Your task to perform on an android device: open app "Microsoft Excel" Image 0: 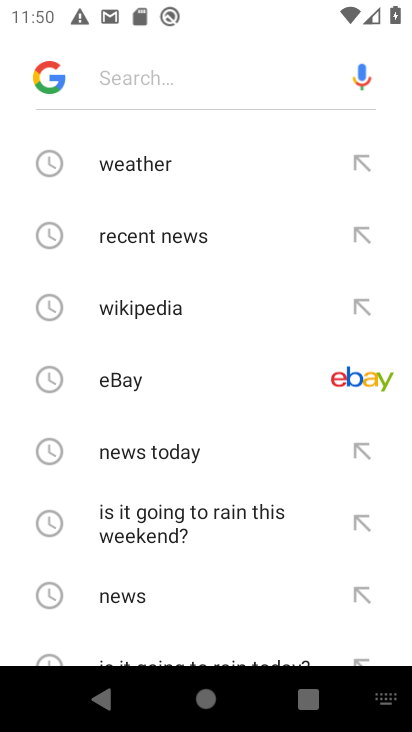
Step 0: press home button
Your task to perform on an android device: open app "Microsoft Excel" Image 1: 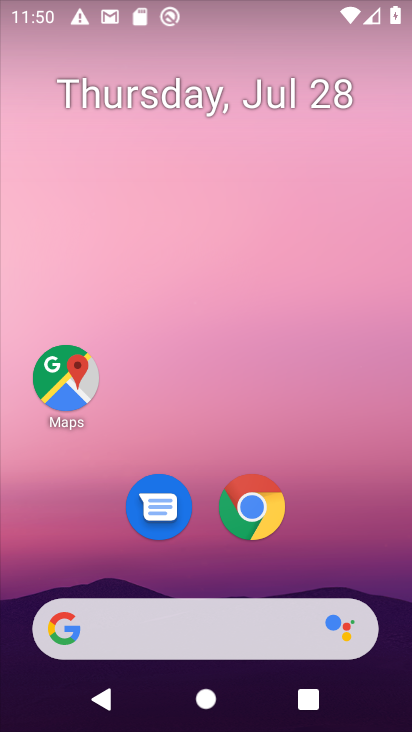
Step 1: drag from (213, 492) to (251, 2)
Your task to perform on an android device: open app "Microsoft Excel" Image 2: 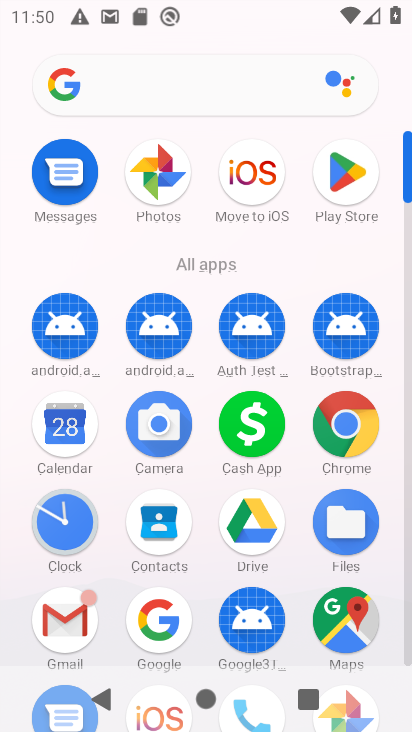
Step 2: click (353, 183)
Your task to perform on an android device: open app "Microsoft Excel" Image 3: 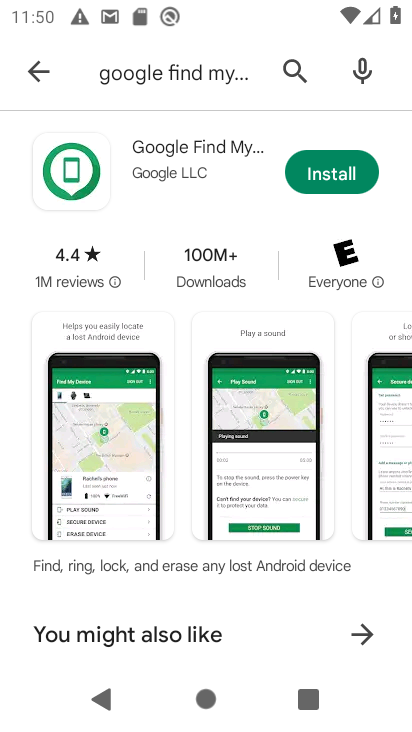
Step 3: click (220, 86)
Your task to perform on an android device: open app "Microsoft Excel" Image 4: 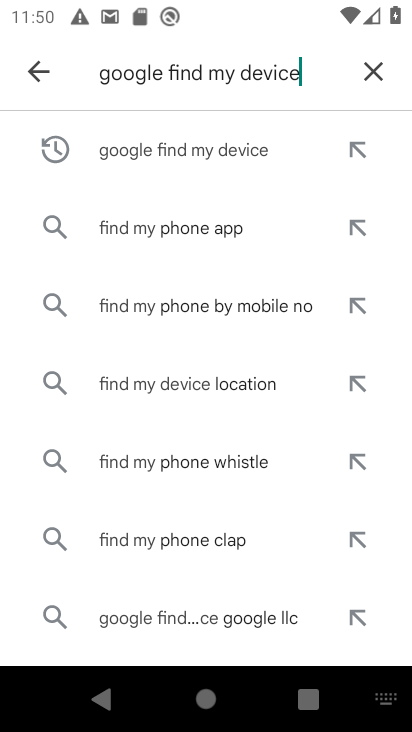
Step 4: click (365, 72)
Your task to perform on an android device: open app "Microsoft Excel" Image 5: 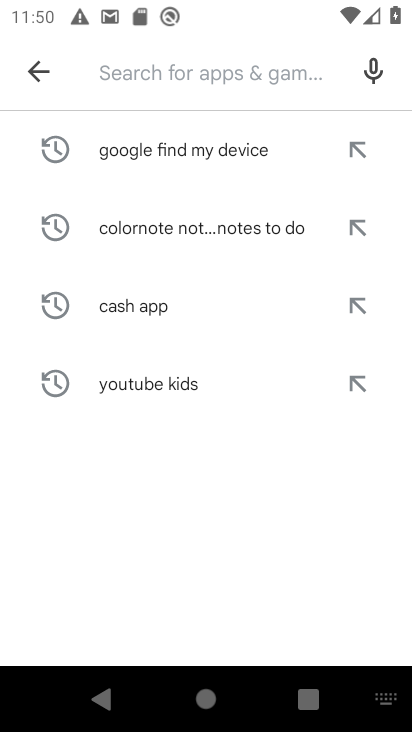
Step 5: type "microsoft Excel"
Your task to perform on an android device: open app "Microsoft Excel" Image 6: 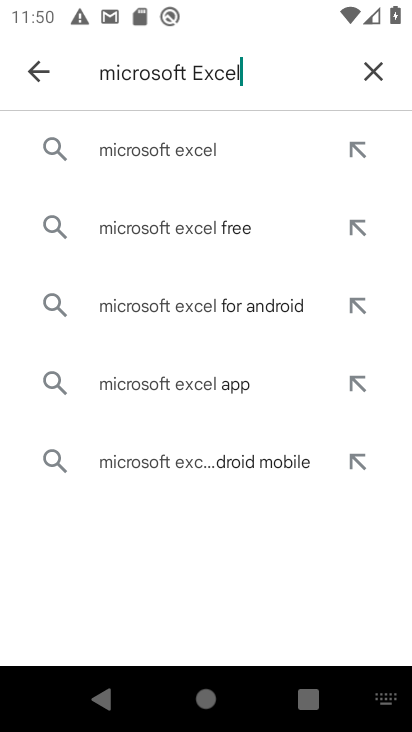
Step 6: click (187, 169)
Your task to perform on an android device: open app "Microsoft Excel" Image 7: 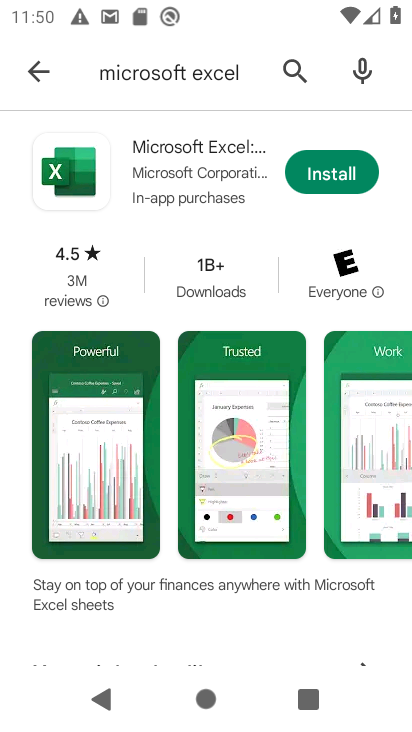
Step 7: task complete